Your task to perform on an android device: Set the phone to "Do not disturb". Image 0: 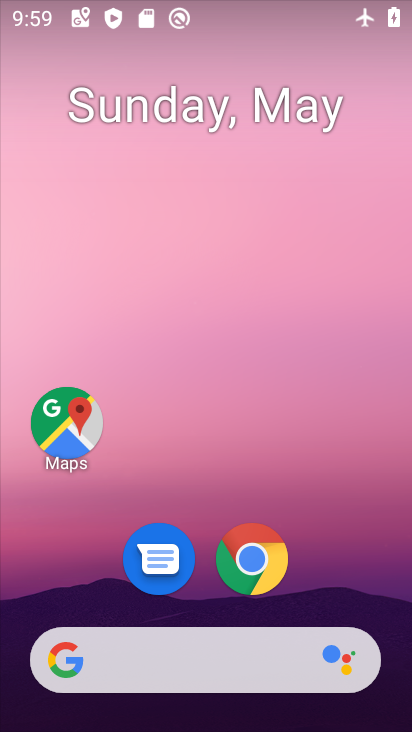
Step 0: press home button
Your task to perform on an android device: Set the phone to "Do not disturb". Image 1: 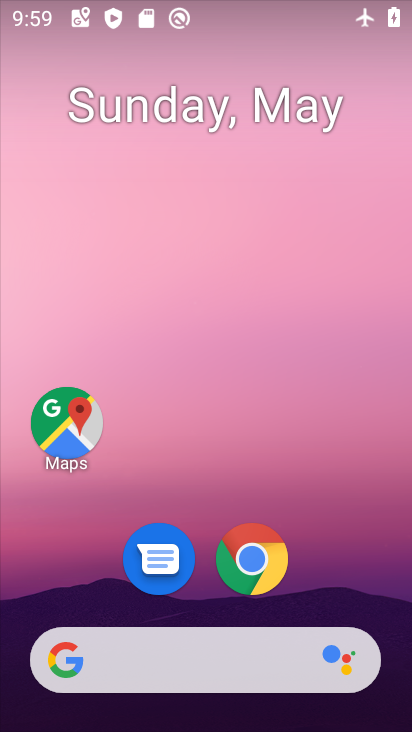
Step 1: drag from (235, 9) to (238, 144)
Your task to perform on an android device: Set the phone to "Do not disturb". Image 2: 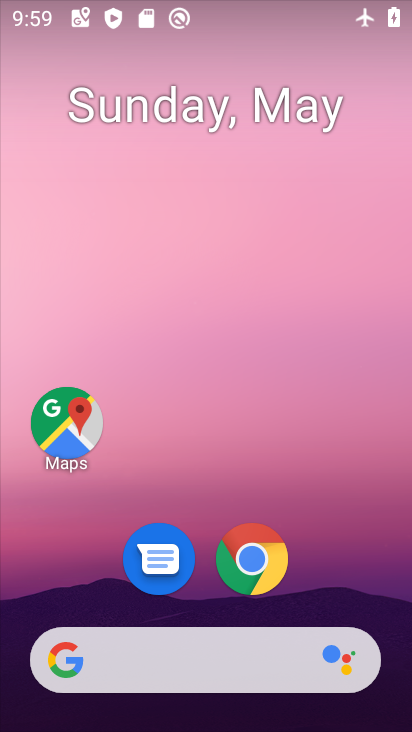
Step 2: drag from (225, 22) to (259, 374)
Your task to perform on an android device: Set the phone to "Do not disturb". Image 3: 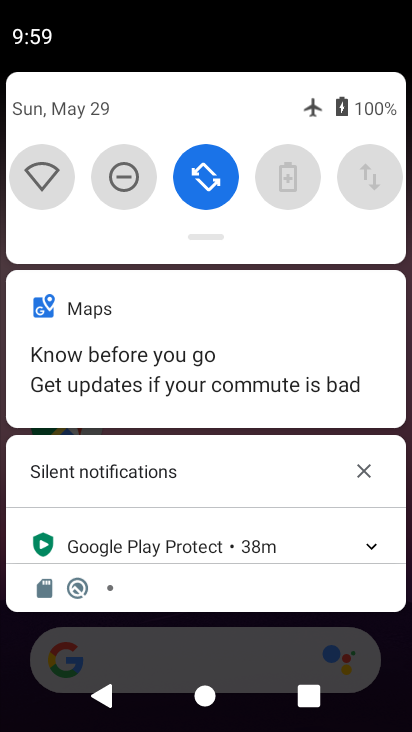
Step 3: drag from (206, 239) to (225, 665)
Your task to perform on an android device: Set the phone to "Do not disturb". Image 4: 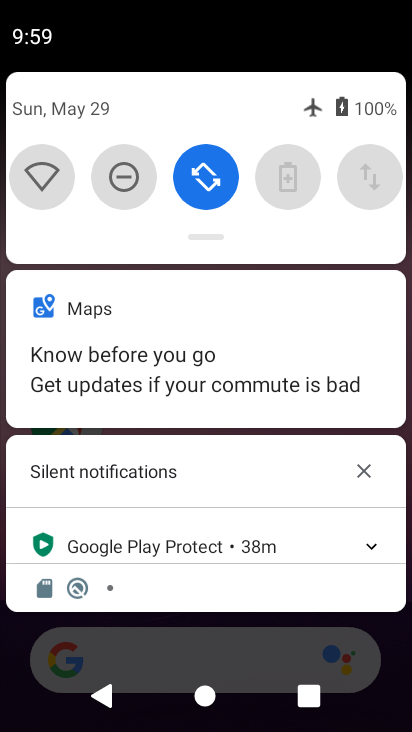
Step 4: drag from (205, 237) to (218, 636)
Your task to perform on an android device: Set the phone to "Do not disturb". Image 5: 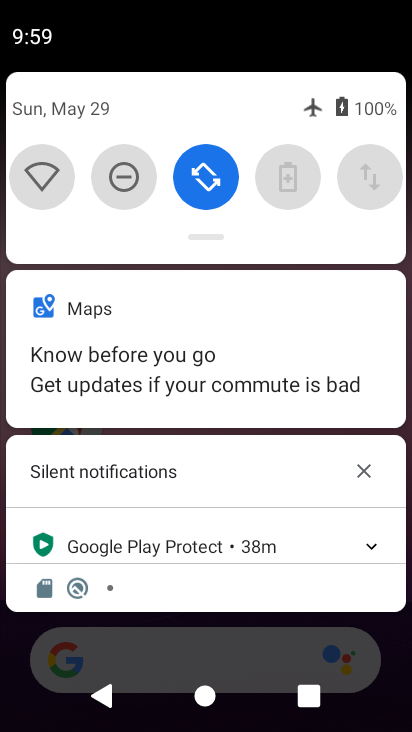
Step 5: drag from (206, 237) to (219, 634)
Your task to perform on an android device: Set the phone to "Do not disturb". Image 6: 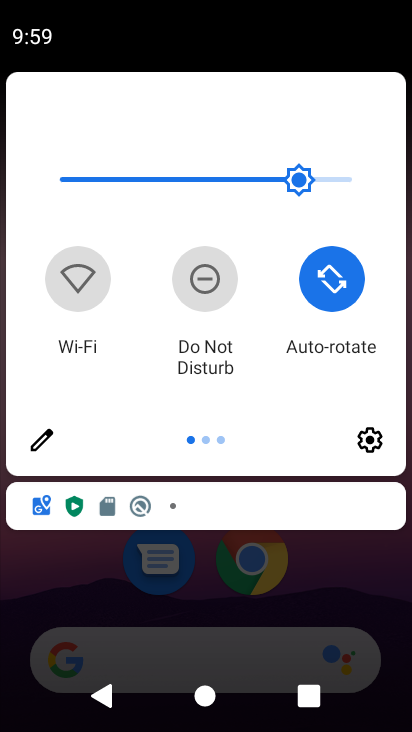
Step 6: drag from (213, 234) to (211, 488)
Your task to perform on an android device: Set the phone to "Do not disturb". Image 7: 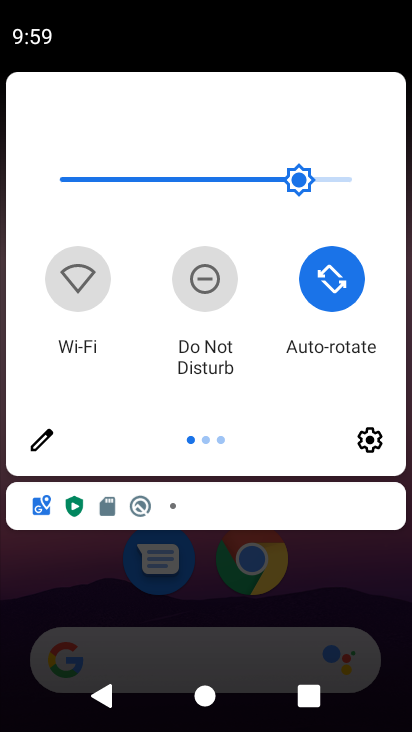
Step 7: click (204, 274)
Your task to perform on an android device: Set the phone to "Do not disturb". Image 8: 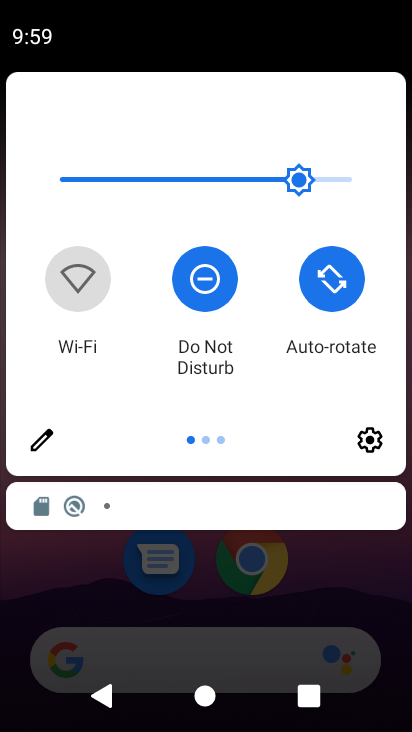
Step 8: task complete